Your task to perform on an android device: Turn on the flashlight Image 0: 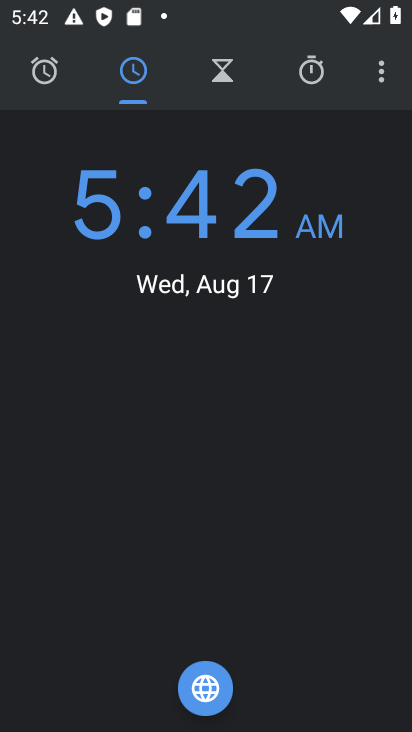
Step 0: press home button
Your task to perform on an android device: Turn on the flashlight Image 1: 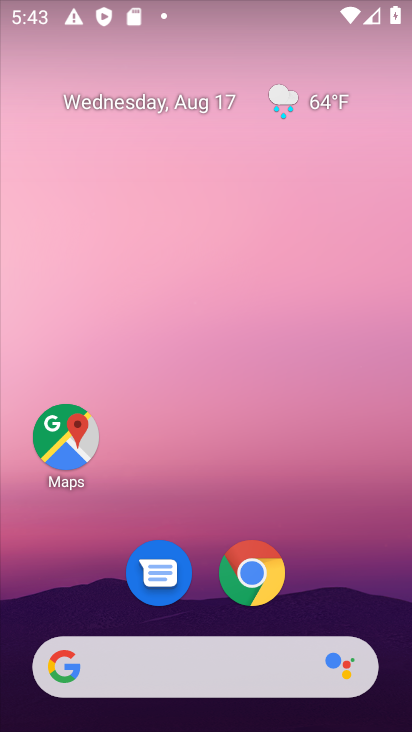
Step 1: drag from (316, 586) to (401, 12)
Your task to perform on an android device: Turn on the flashlight Image 2: 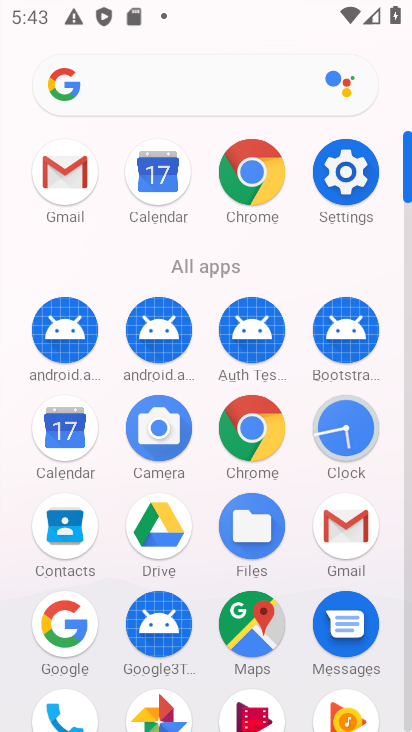
Step 2: click (352, 186)
Your task to perform on an android device: Turn on the flashlight Image 3: 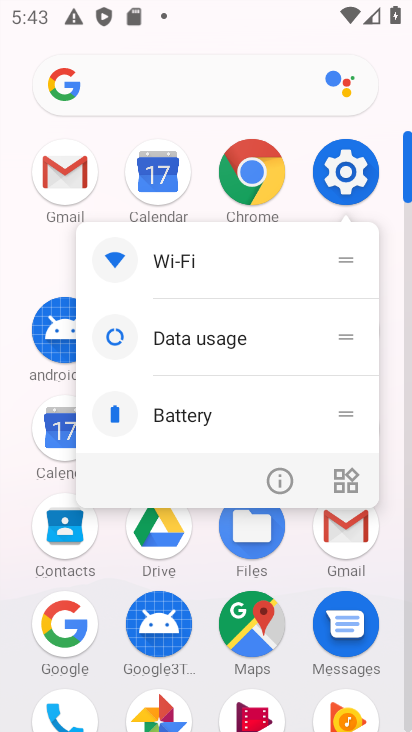
Step 3: click (352, 183)
Your task to perform on an android device: Turn on the flashlight Image 4: 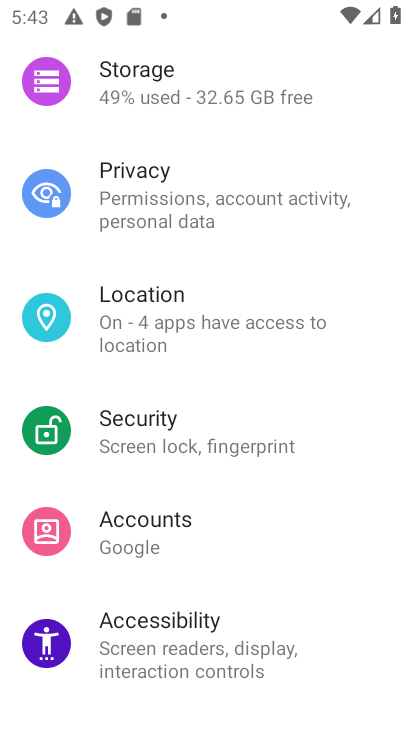
Step 4: task complete